Your task to perform on an android device: Open wifi settings Image 0: 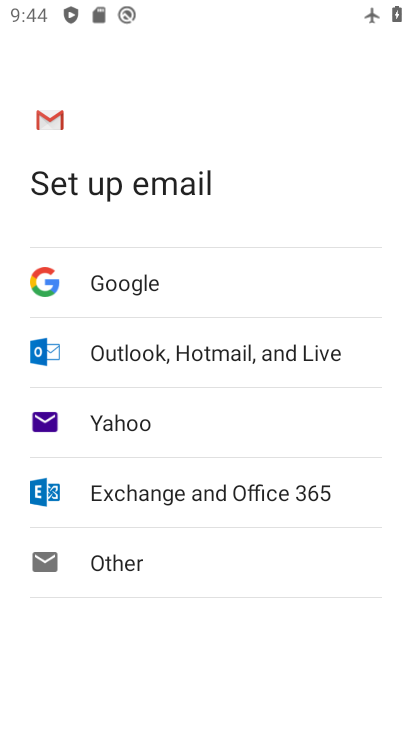
Step 0: press home button
Your task to perform on an android device: Open wifi settings Image 1: 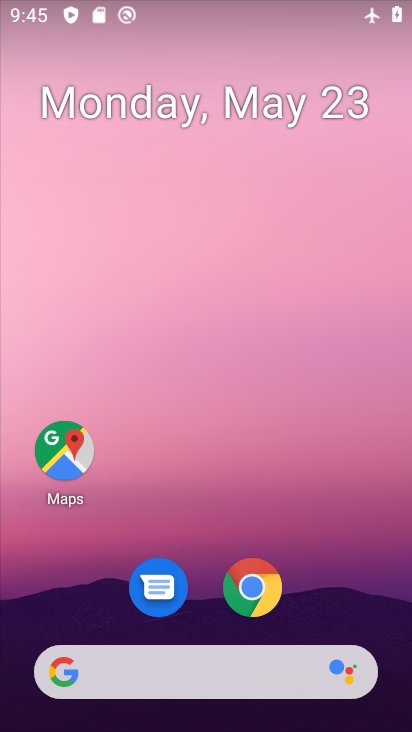
Step 1: drag from (349, 561) to (409, 3)
Your task to perform on an android device: Open wifi settings Image 2: 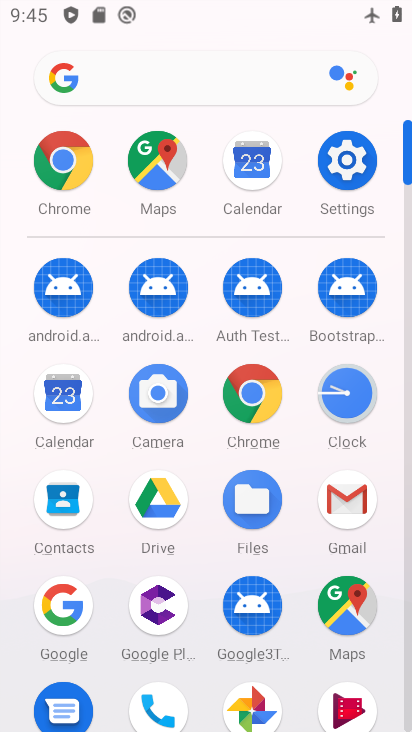
Step 2: click (348, 174)
Your task to perform on an android device: Open wifi settings Image 3: 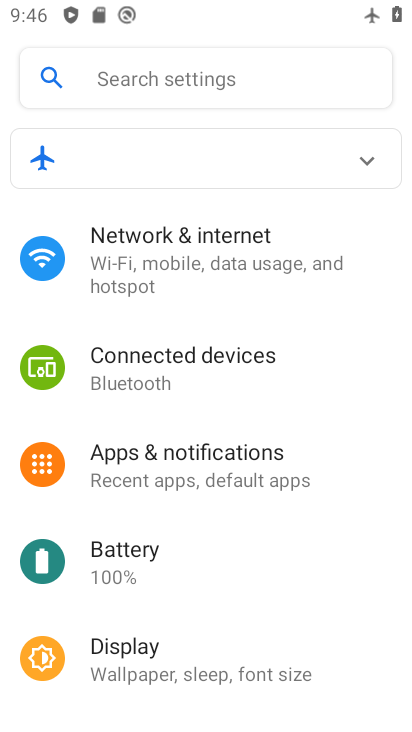
Step 3: click (150, 237)
Your task to perform on an android device: Open wifi settings Image 4: 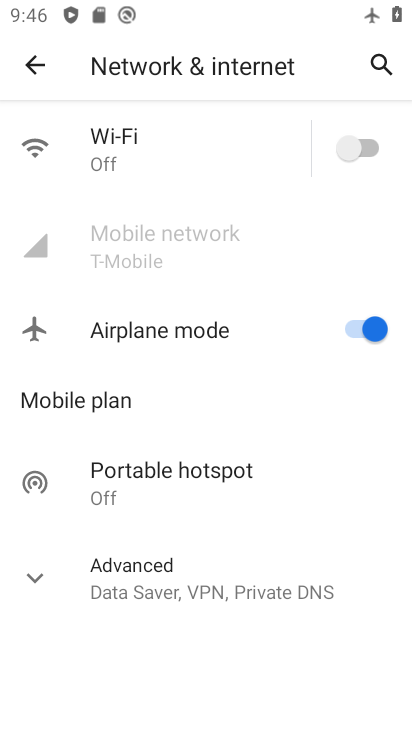
Step 4: click (89, 140)
Your task to perform on an android device: Open wifi settings Image 5: 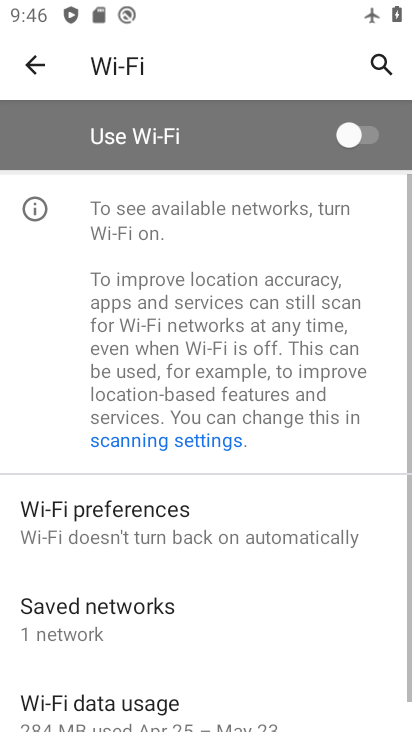
Step 5: task complete